Your task to perform on an android device: install app "Facebook Lite" Image 0: 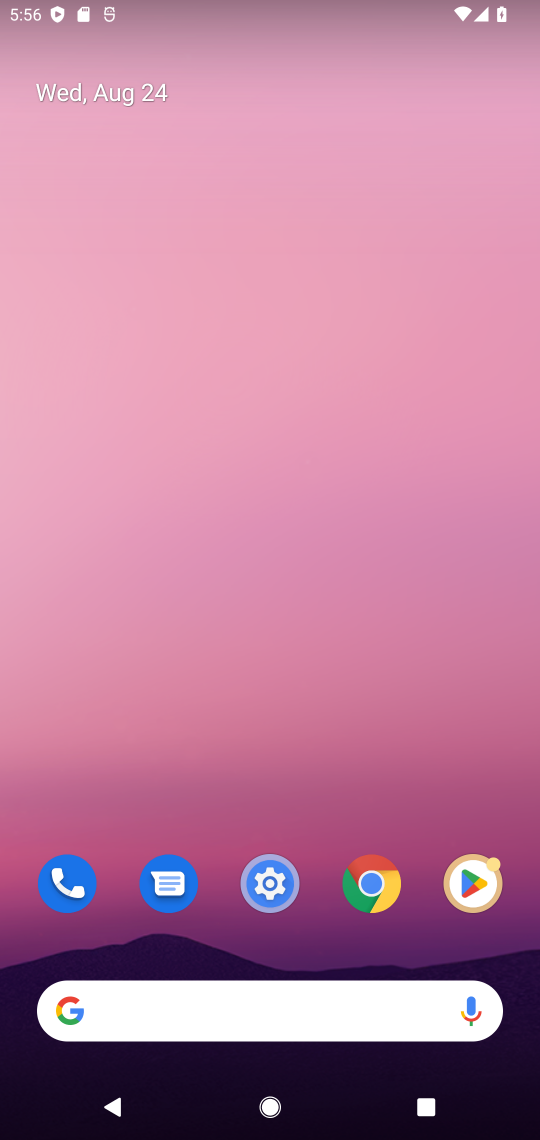
Step 0: drag from (250, 911) to (257, 180)
Your task to perform on an android device: install app "Facebook Lite" Image 1: 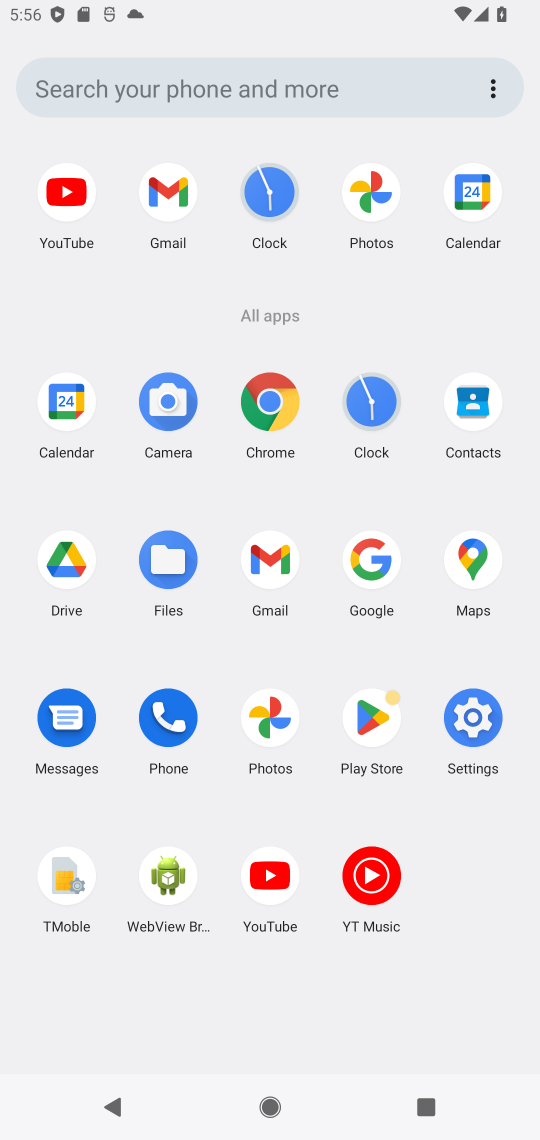
Step 1: click (349, 713)
Your task to perform on an android device: install app "Facebook Lite" Image 2: 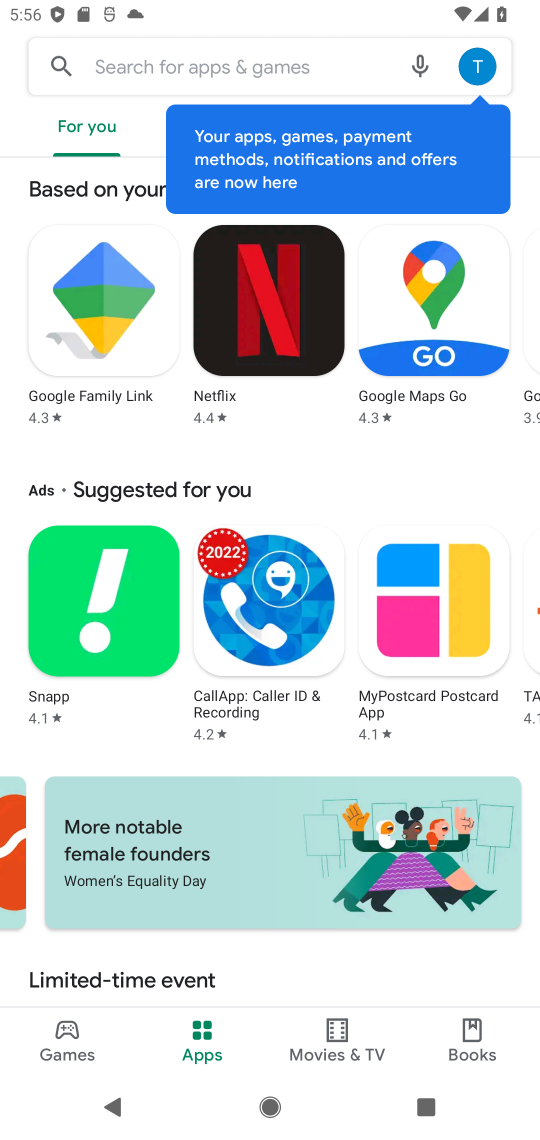
Step 2: click (189, 43)
Your task to perform on an android device: install app "Facebook Lite" Image 3: 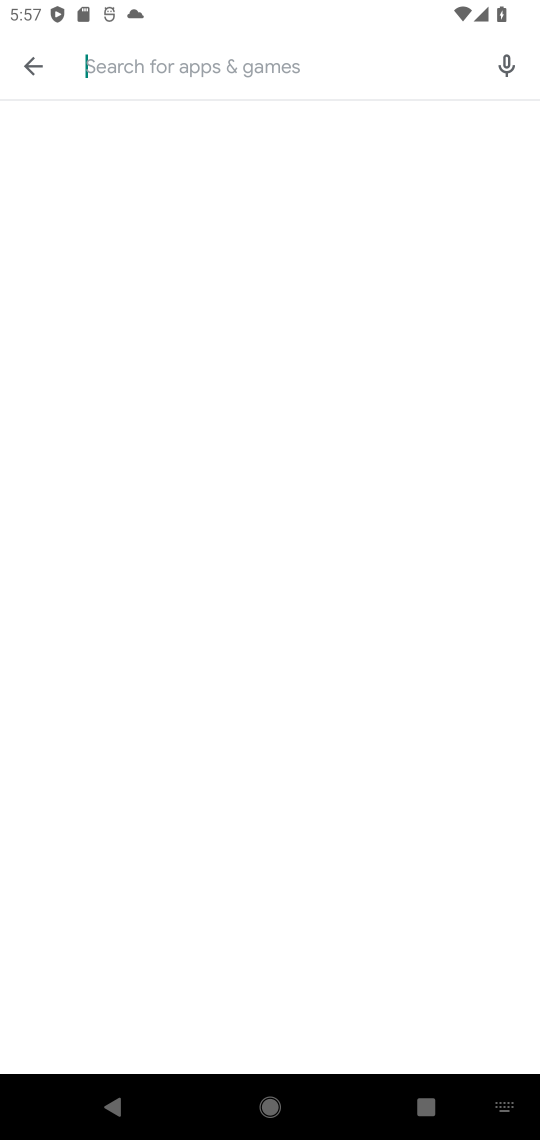
Step 3: type "Facebook Lite "
Your task to perform on an android device: install app "Facebook Lite" Image 4: 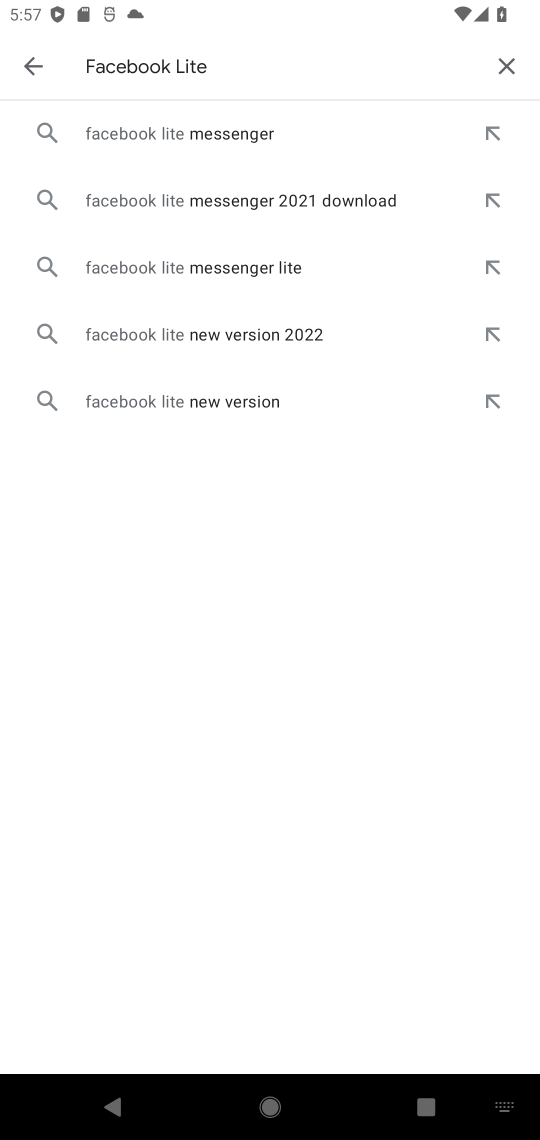
Step 4: click (201, 132)
Your task to perform on an android device: install app "Facebook Lite" Image 5: 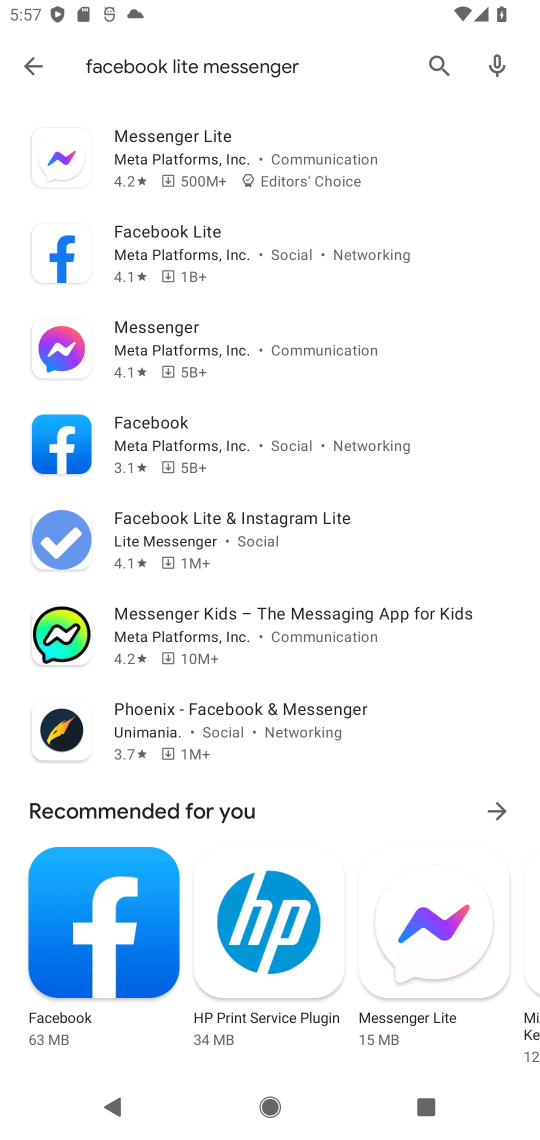
Step 5: click (194, 161)
Your task to perform on an android device: install app "Facebook Lite" Image 6: 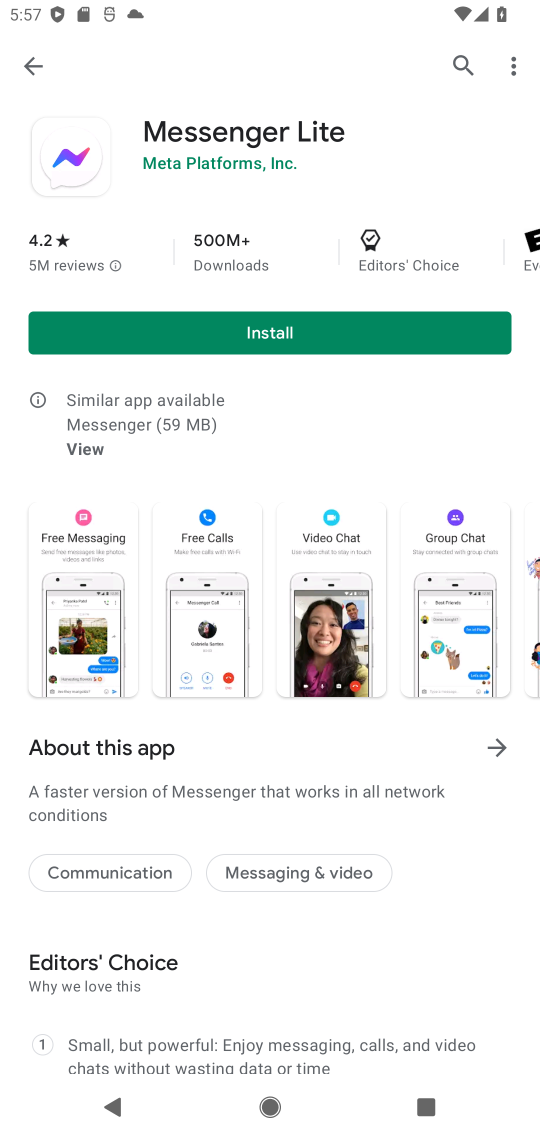
Step 6: click (217, 335)
Your task to perform on an android device: install app "Facebook Lite" Image 7: 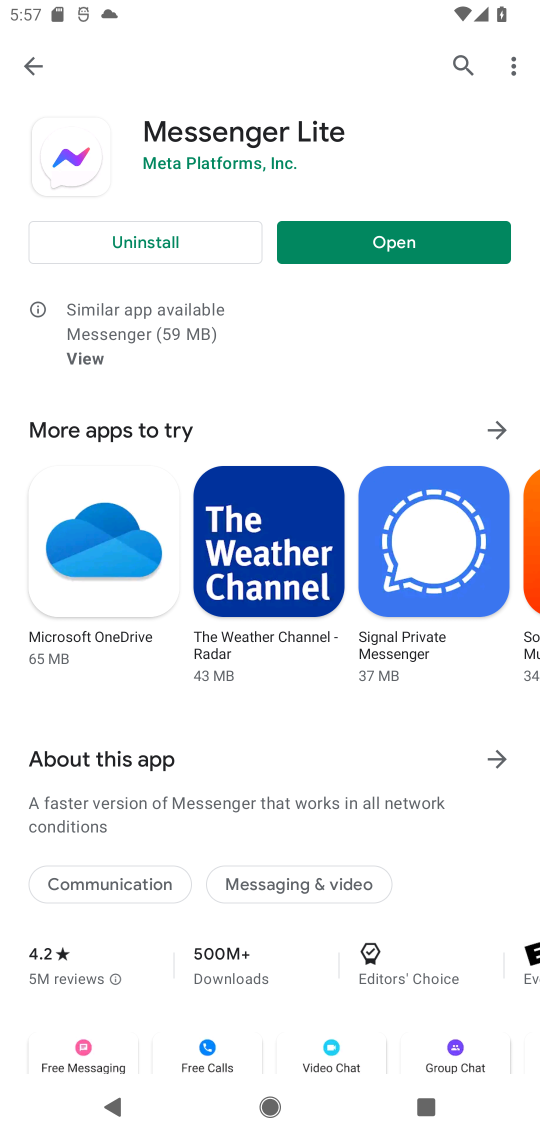
Step 7: task complete